Your task to perform on an android device: Turn on the flashlight Image 0: 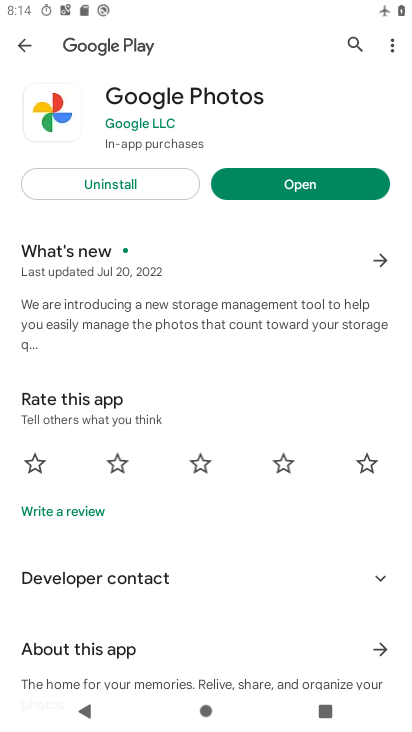
Step 0: drag from (300, 689) to (253, 307)
Your task to perform on an android device: Turn on the flashlight Image 1: 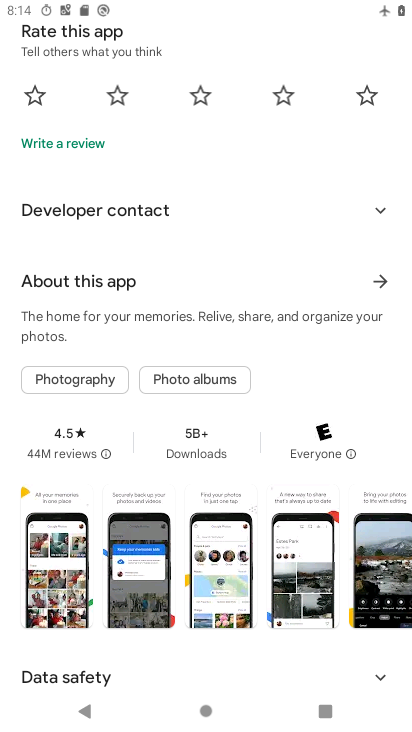
Step 1: task complete